Your task to perform on an android device: Search for seafood restaurants on Google Maps Image 0: 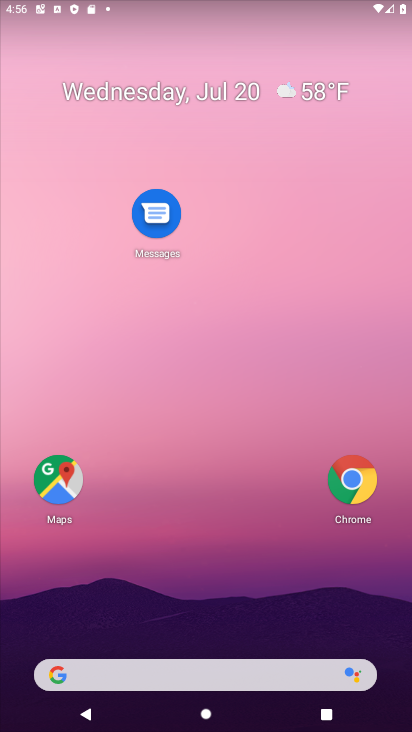
Step 0: click (56, 502)
Your task to perform on an android device: Search for seafood restaurants on Google Maps Image 1: 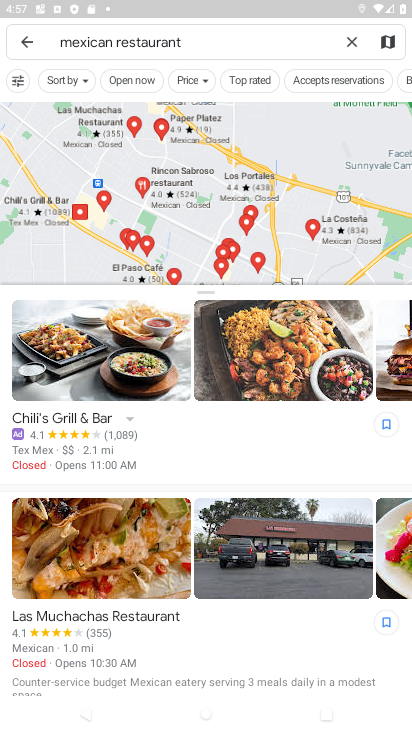
Step 1: click (346, 50)
Your task to perform on an android device: Search for seafood restaurants on Google Maps Image 2: 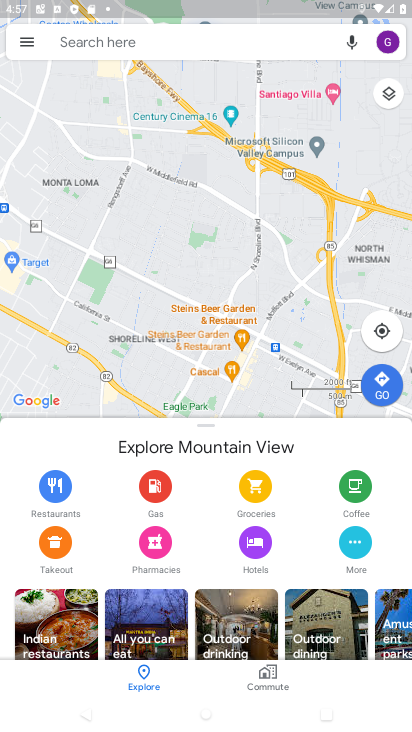
Step 2: click (234, 41)
Your task to perform on an android device: Search for seafood restaurants on Google Maps Image 3: 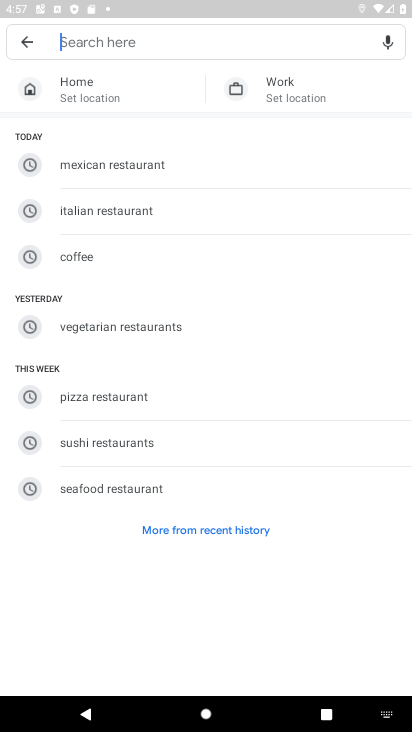
Step 3: click (88, 491)
Your task to perform on an android device: Search for seafood restaurants on Google Maps Image 4: 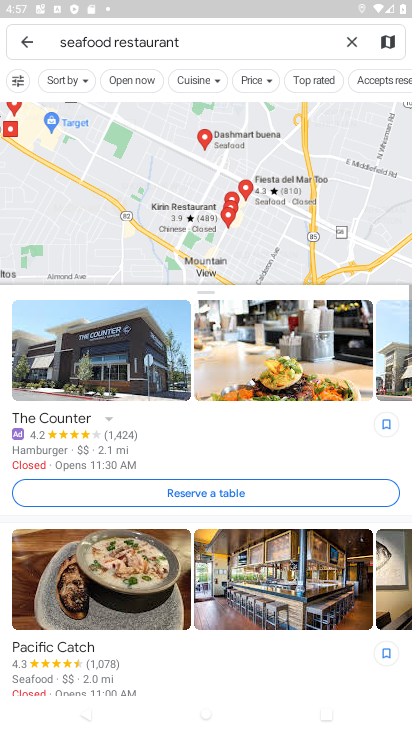
Step 4: task complete